Your task to perform on an android device: Open Youtube and go to the subscriptions tab Image 0: 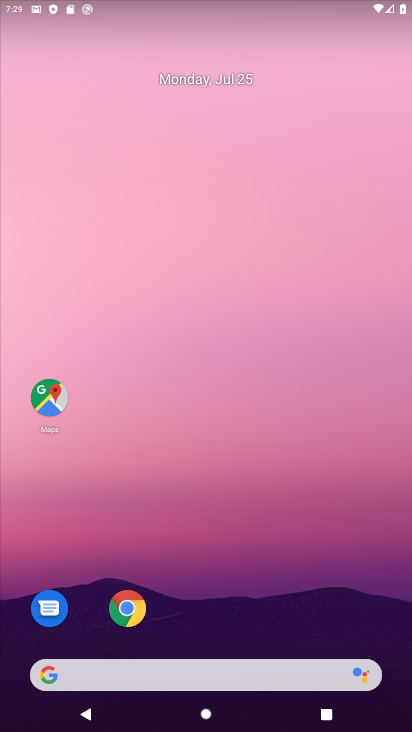
Step 0: drag from (203, 712) to (246, 149)
Your task to perform on an android device: Open Youtube and go to the subscriptions tab Image 1: 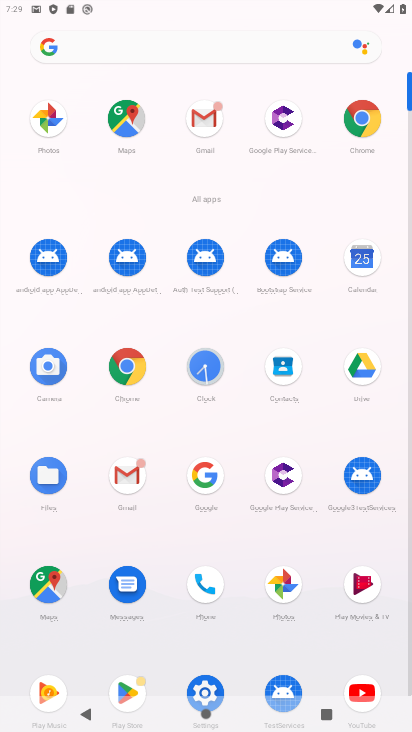
Step 1: click (368, 683)
Your task to perform on an android device: Open Youtube and go to the subscriptions tab Image 2: 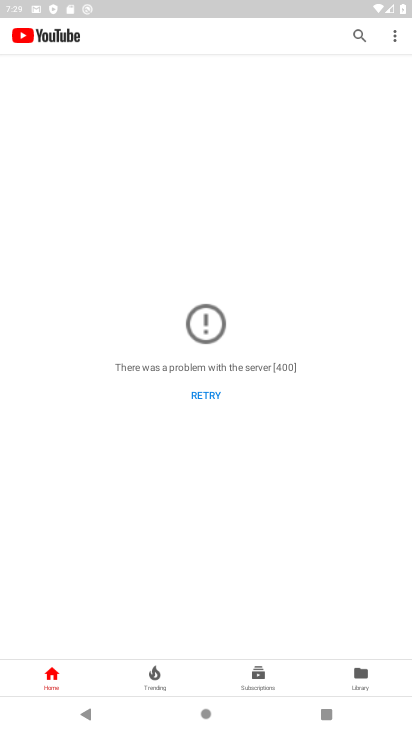
Step 2: click (253, 680)
Your task to perform on an android device: Open Youtube and go to the subscriptions tab Image 3: 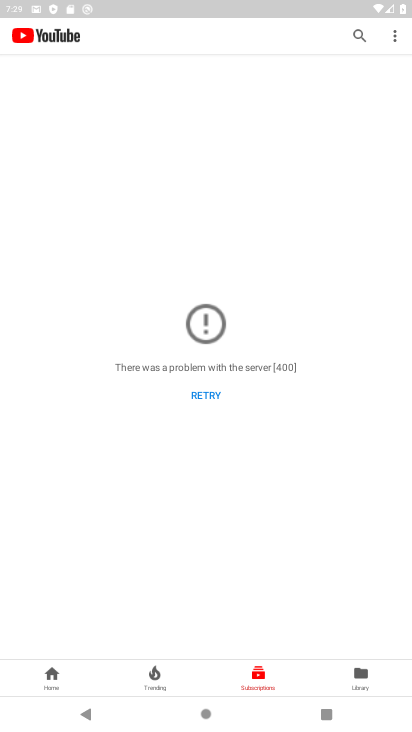
Step 3: task complete